Your task to perform on an android device: Play the last video I watched on Youtube Image 0: 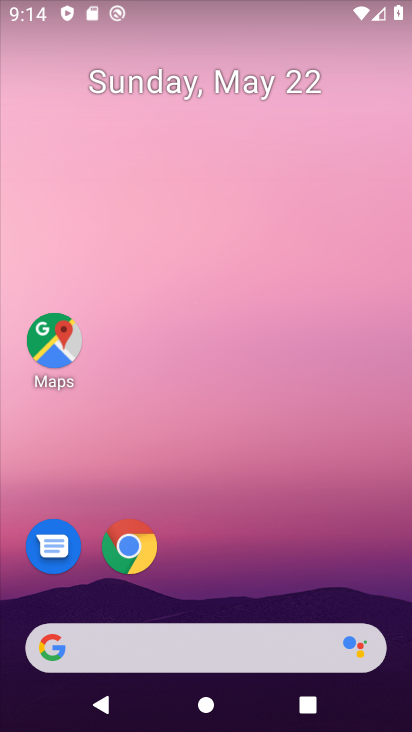
Step 0: drag from (305, 575) to (228, 115)
Your task to perform on an android device: Play the last video I watched on Youtube Image 1: 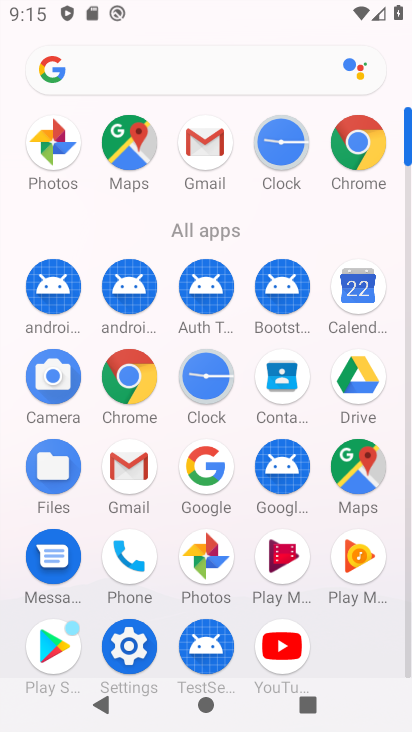
Step 1: click (286, 650)
Your task to perform on an android device: Play the last video I watched on Youtube Image 2: 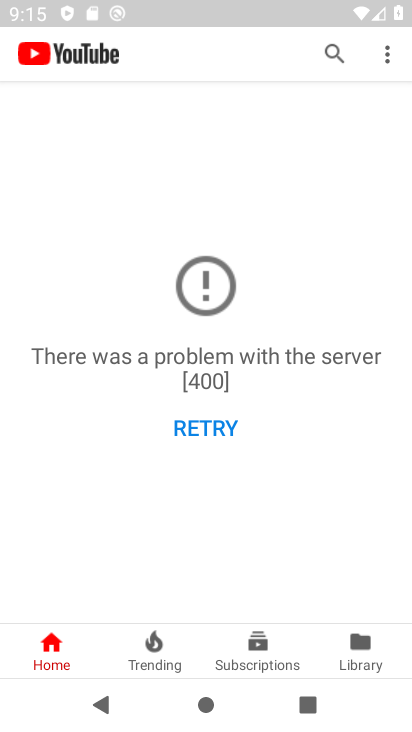
Step 2: click (373, 661)
Your task to perform on an android device: Play the last video I watched on Youtube Image 3: 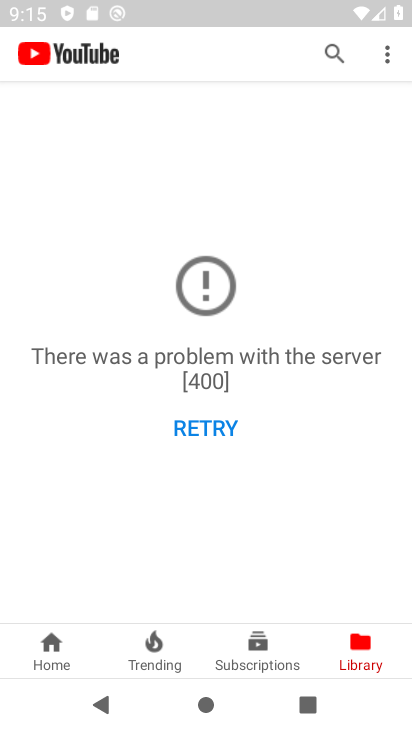
Step 3: task complete